Your task to perform on an android device: change text size in settings app Image 0: 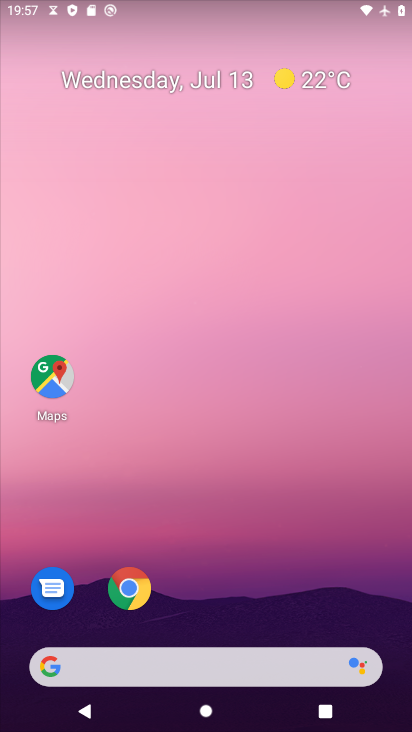
Step 0: drag from (269, 621) to (278, 118)
Your task to perform on an android device: change text size in settings app Image 1: 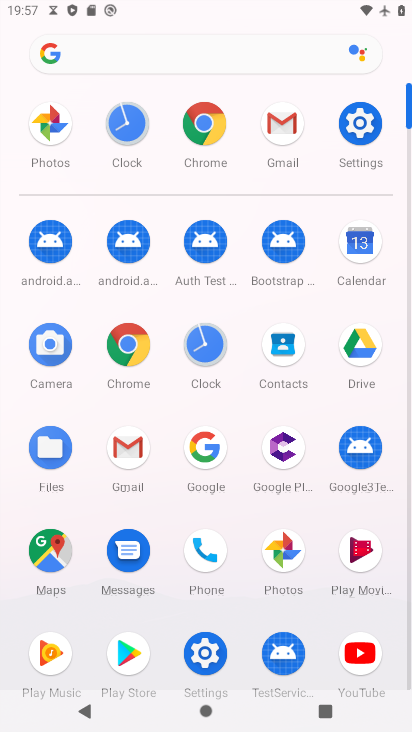
Step 1: click (367, 121)
Your task to perform on an android device: change text size in settings app Image 2: 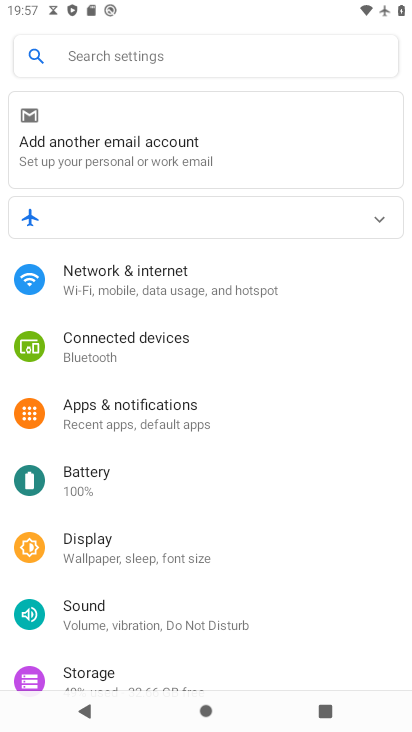
Step 2: drag from (186, 642) to (340, 141)
Your task to perform on an android device: change text size in settings app Image 3: 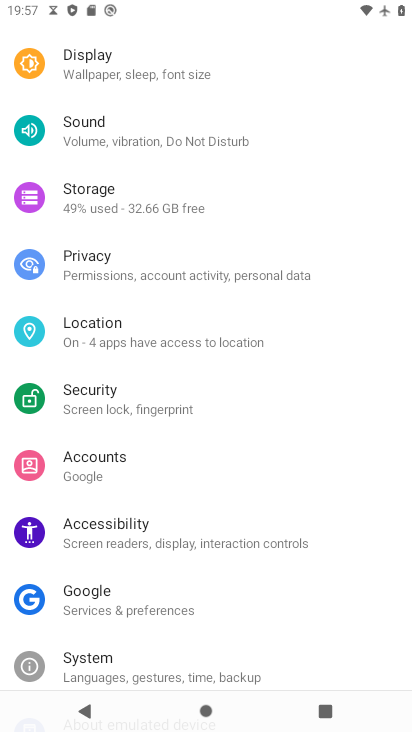
Step 3: drag from (165, 633) to (124, 267)
Your task to perform on an android device: change text size in settings app Image 4: 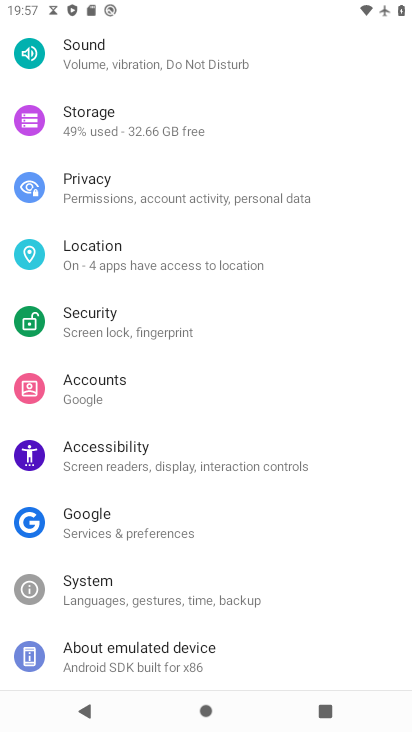
Step 4: click (94, 601)
Your task to perform on an android device: change text size in settings app Image 5: 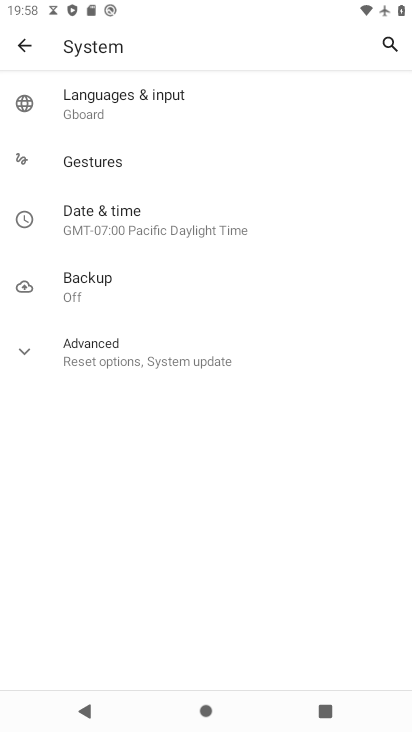
Step 5: click (91, 49)
Your task to perform on an android device: change text size in settings app Image 6: 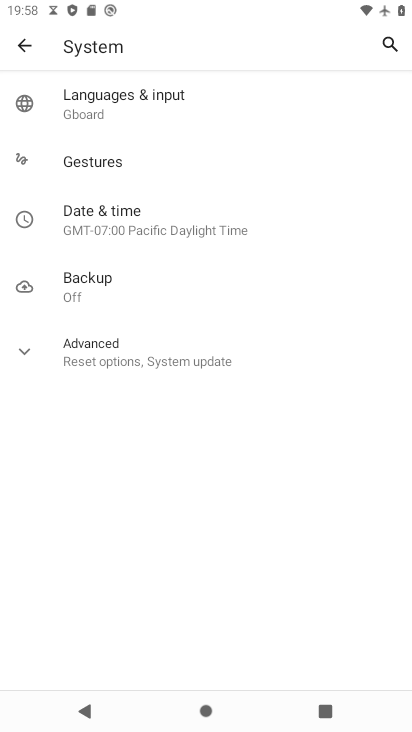
Step 6: click (19, 41)
Your task to perform on an android device: change text size in settings app Image 7: 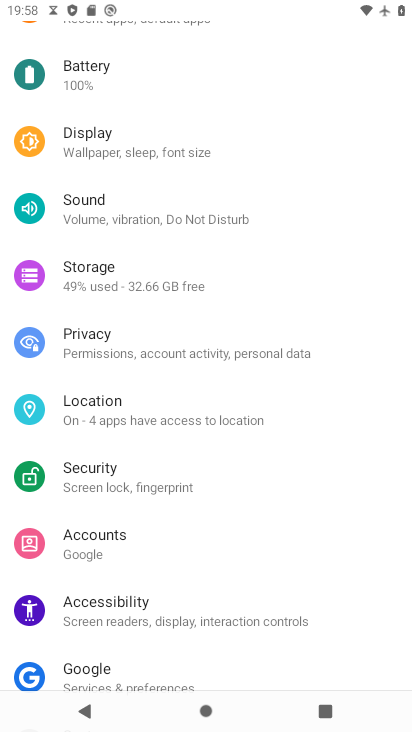
Step 7: drag from (191, 590) to (0, 267)
Your task to perform on an android device: change text size in settings app Image 8: 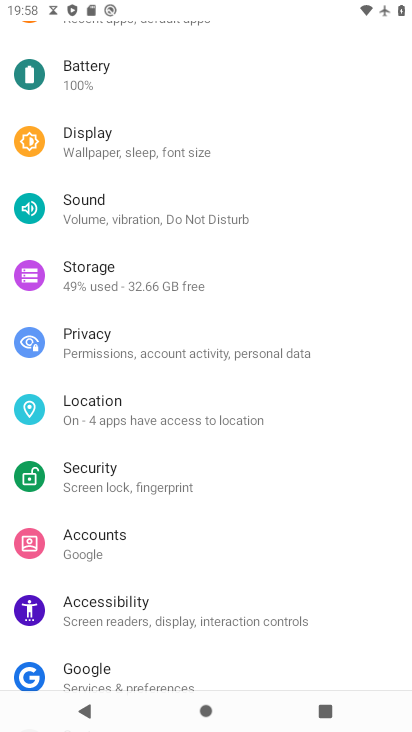
Step 8: drag from (258, 611) to (272, 281)
Your task to perform on an android device: change text size in settings app Image 9: 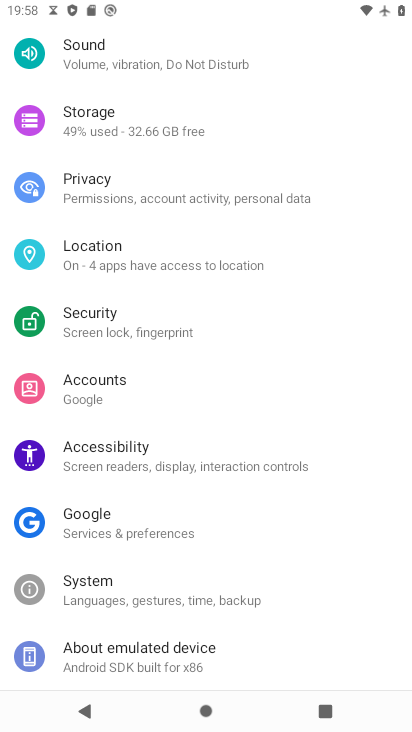
Step 9: click (166, 600)
Your task to perform on an android device: change text size in settings app Image 10: 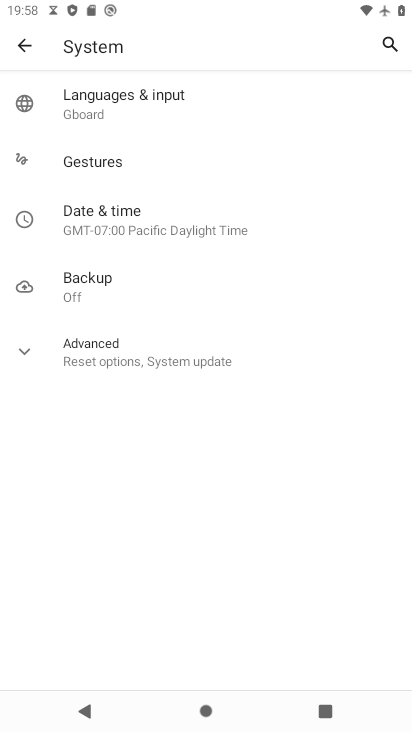
Step 10: click (23, 40)
Your task to perform on an android device: change text size in settings app Image 11: 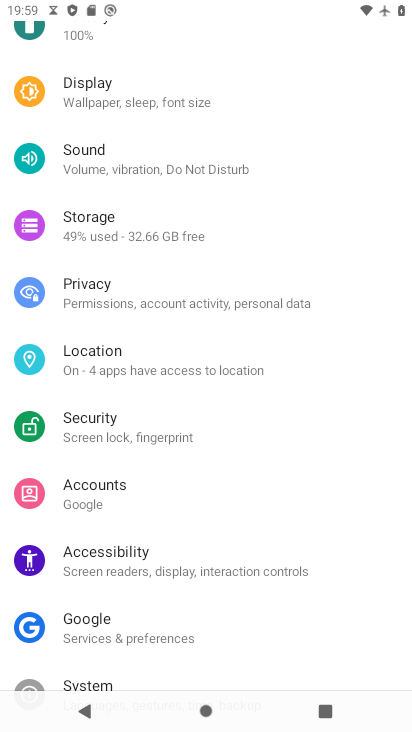
Step 11: drag from (184, 589) to (164, 261)
Your task to perform on an android device: change text size in settings app Image 12: 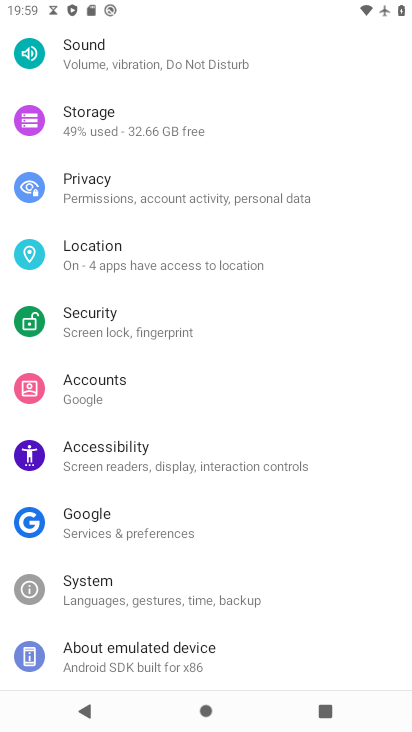
Step 12: click (204, 580)
Your task to perform on an android device: change text size in settings app Image 13: 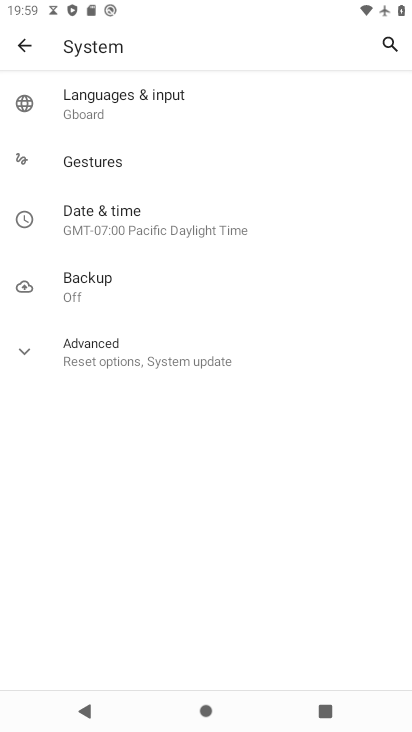
Step 13: click (10, 46)
Your task to perform on an android device: change text size in settings app Image 14: 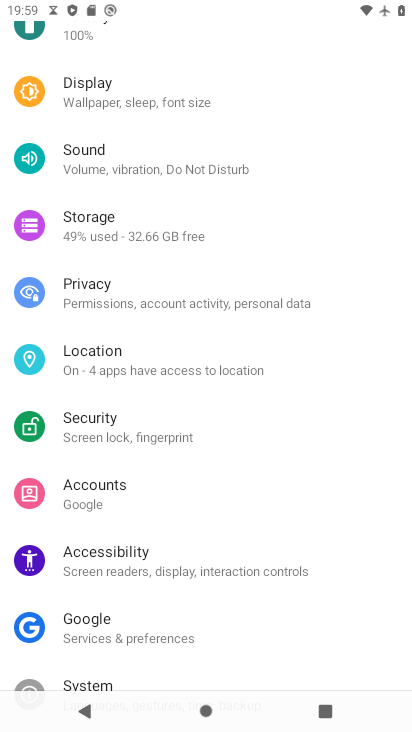
Step 14: task complete